Your task to perform on an android device: turn on data saver in the chrome app Image 0: 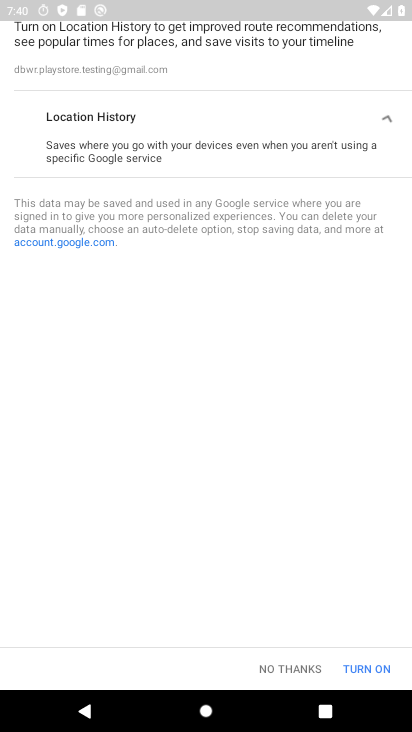
Step 0: press home button
Your task to perform on an android device: turn on data saver in the chrome app Image 1: 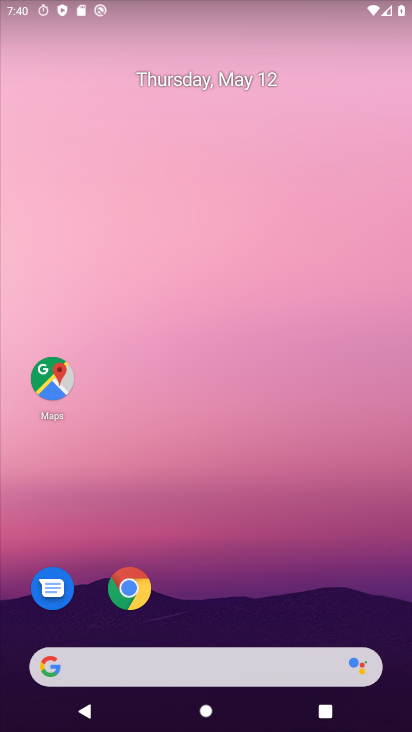
Step 1: drag from (214, 556) to (234, 66)
Your task to perform on an android device: turn on data saver in the chrome app Image 2: 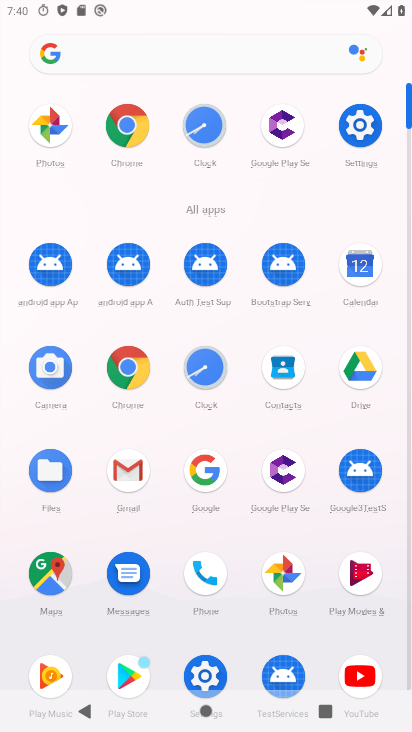
Step 2: click (138, 143)
Your task to perform on an android device: turn on data saver in the chrome app Image 3: 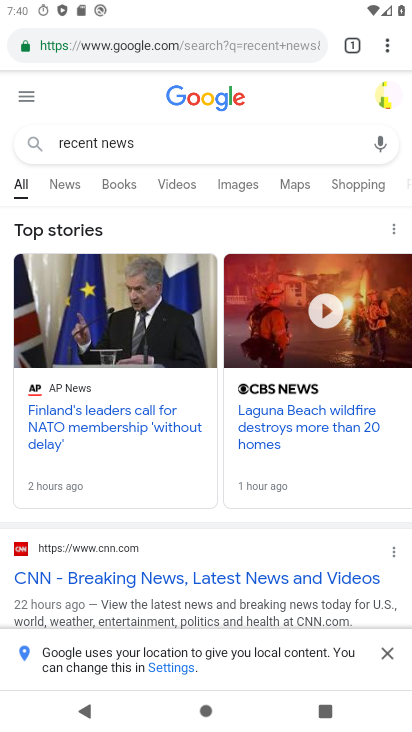
Step 3: drag from (387, 43) to (286, 495)
Your task to perform on an android device: turn on data saver in the chrome app Image 4: 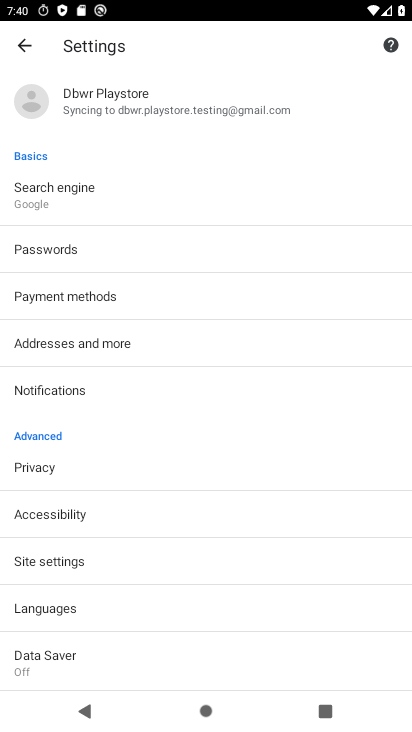
Step 4: click (72, 660)
Your task to perform on an android device: turn on data saver in the chrome app Image 5: 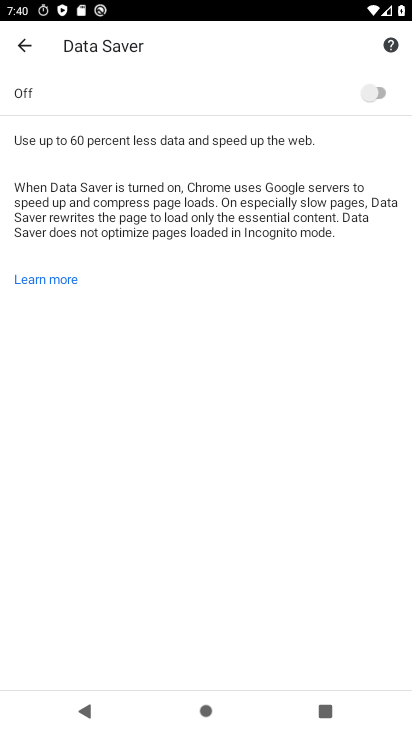
Step 5: click (374, 107)
Your task to perform on an android device: turn on data saver in the chrome app Image 6: 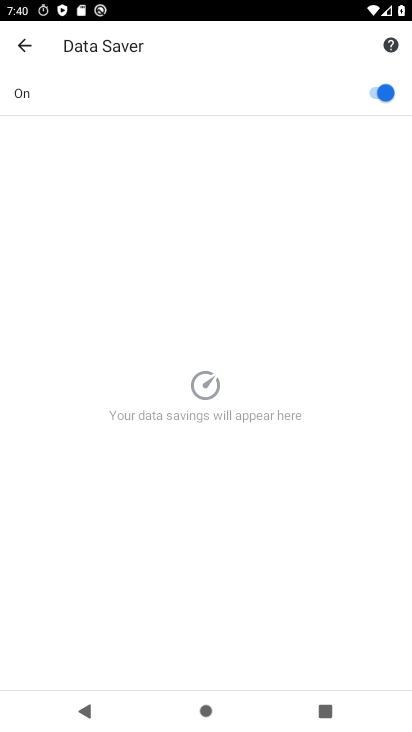
Step 6: task complete